Your task to perform on an android device: Open privacy settings Image 0: 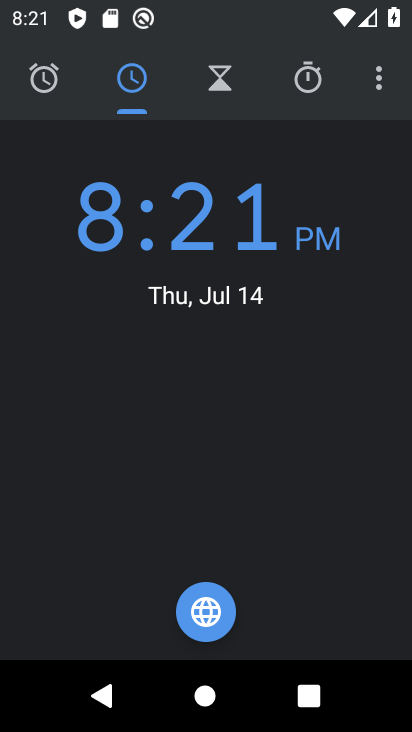
Step 0: press back button
Your task to perform on an android device: Open privacy settings Image 1: 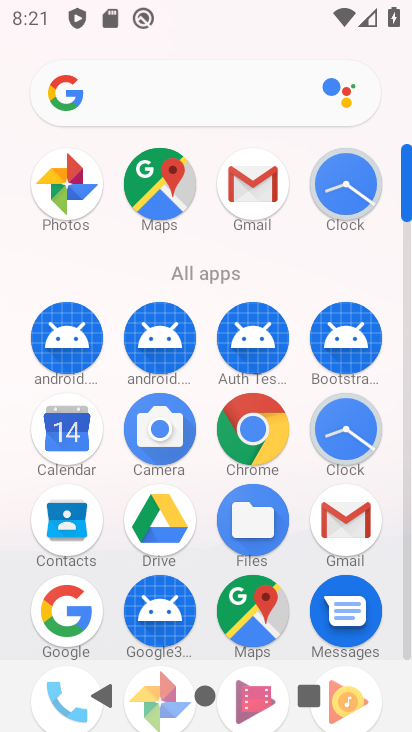
Step 1: drag from (232, 614) to (298, 101)
Your task to perform on an android device: Open privacy settings Image 2: 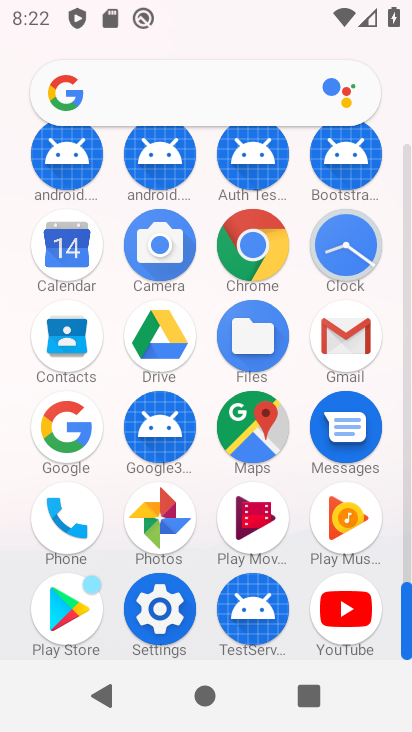
Step 2: click (161, 622)
Your task to perform on an android device: Open privacy settings Image 3: 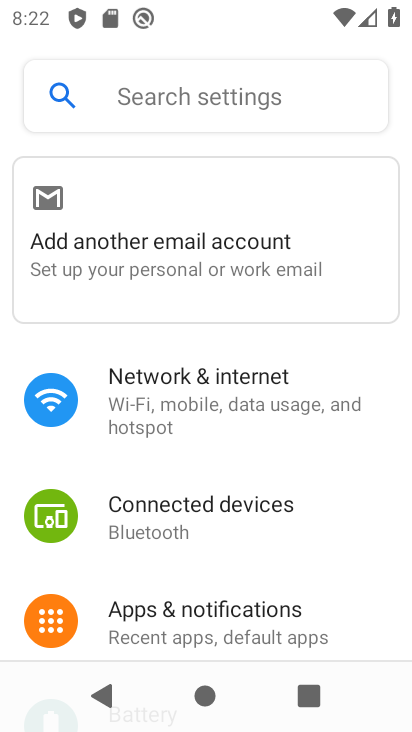
Step 3: drag from (174, 573) to (267, 72)
Your task to perform on an android device: Open privacy settings Image 4: 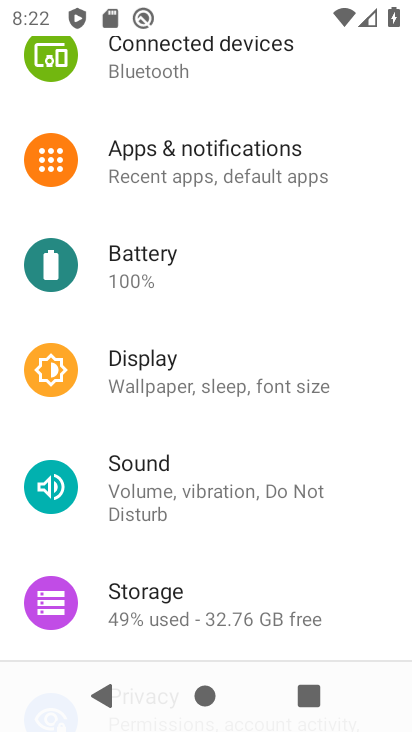
Step 4: drag from (156, 605) to (263, 171)
Your task to perform on an android device: Open privacy settings Image 5: 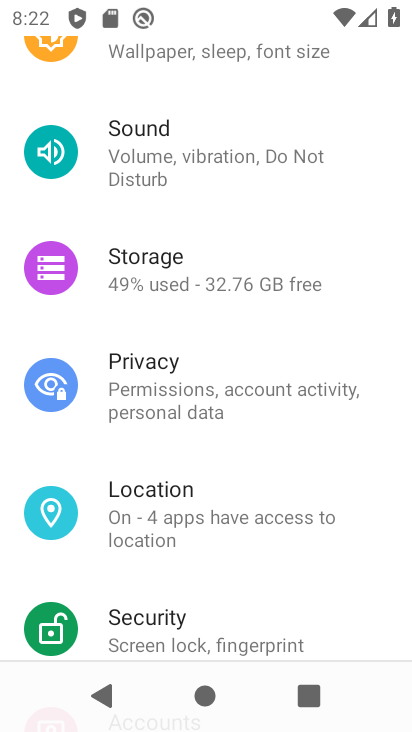
Step 5: click (154, 368)
Your task to perform on an android device: Open privacy settings Image 6: 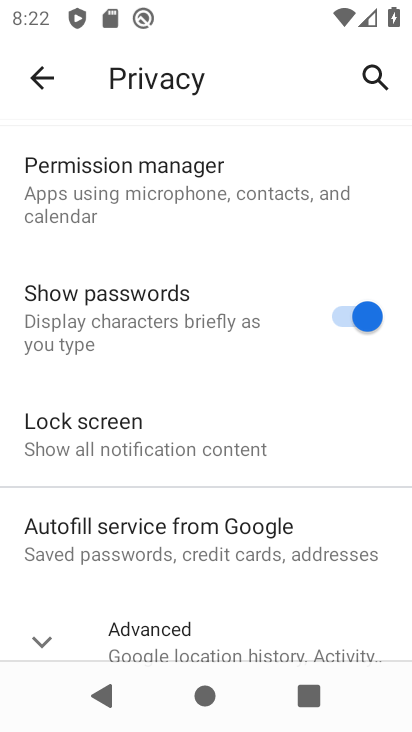
Step 6: task complete